Your task to perform on an android device: What is the news today? Image 0: 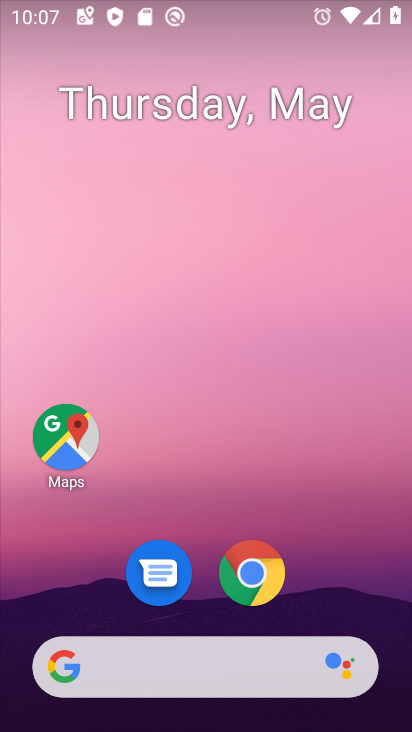
Step 0: drag from (205, 607) to (206, 187)
Your task to perform on an android device: What is the news today? Image 1: 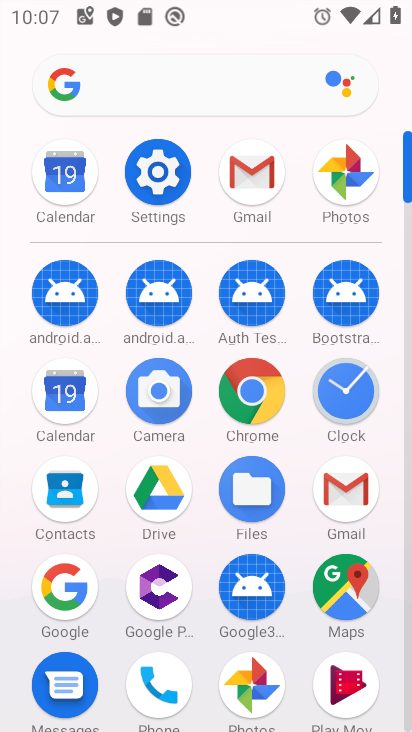
Step 1: click (73, 577)
Your task to perform on an android device: What is the news today? Image 2: 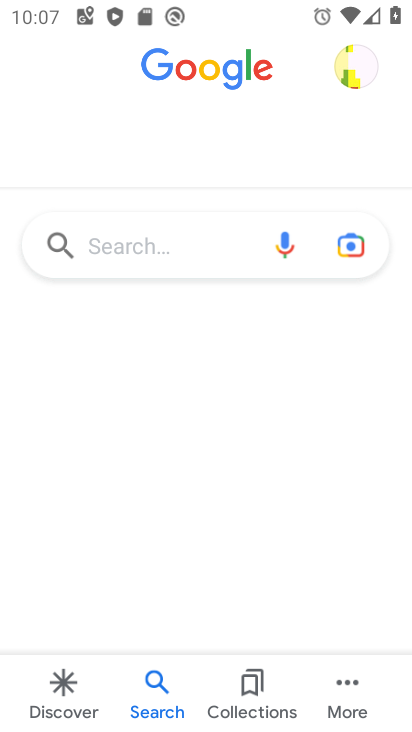
Step 2: click (169, 232)
Your task to perform on an android device: What is the news today? Image 3: 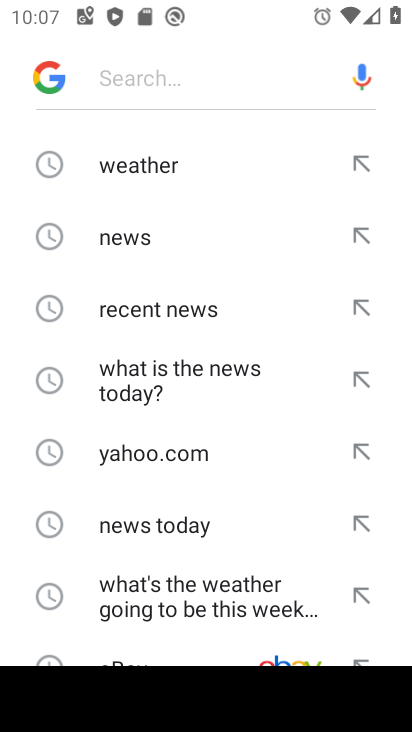
Step 3: click (114, 244)
Your task to perform on an android device: What is the news today? Image 4: 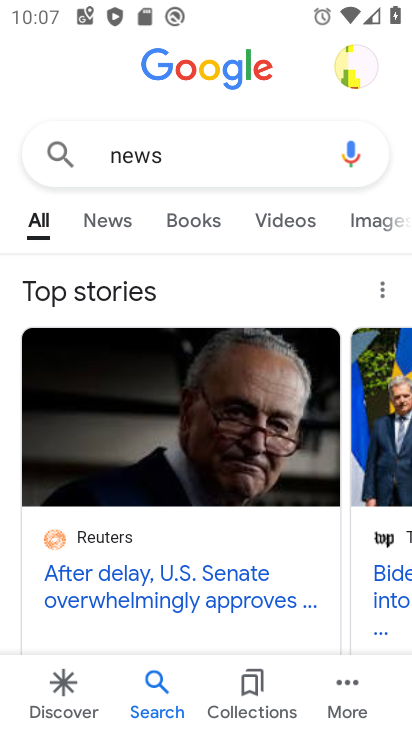
Step 4: click (130, 223)
Your task to perform on an android device: What is the news today? Image 5: 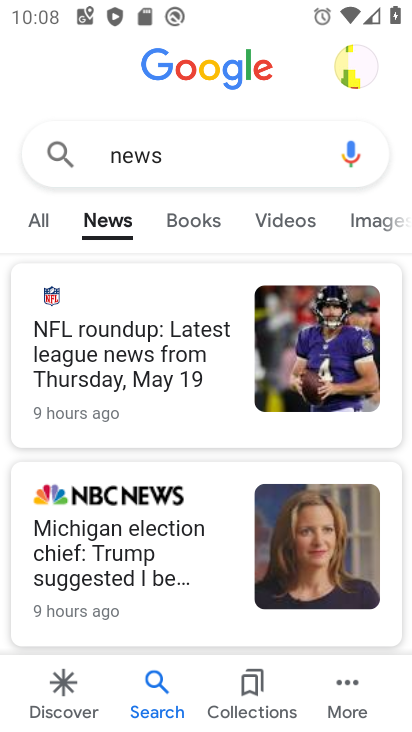
Step 5: task complete